Your task to perform on an android device: toggle translation in the chrome app Image 0: 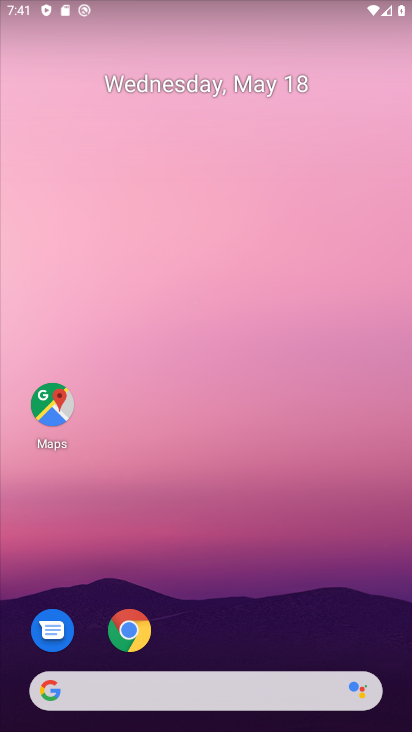
Step 0: drag from (312, 556) to (342, 74)
Your task to perform on an android device: toggle translation in the chrome app Image 1: 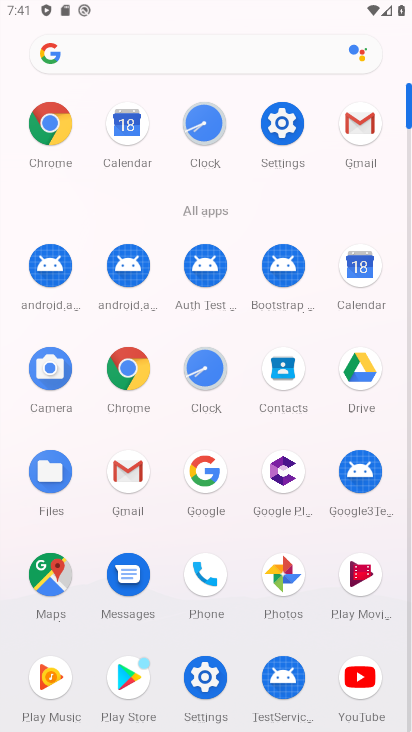
Step 1: click (35, 122)
Your task to perform on an android device: toggle translation in the chrome app Image 2: 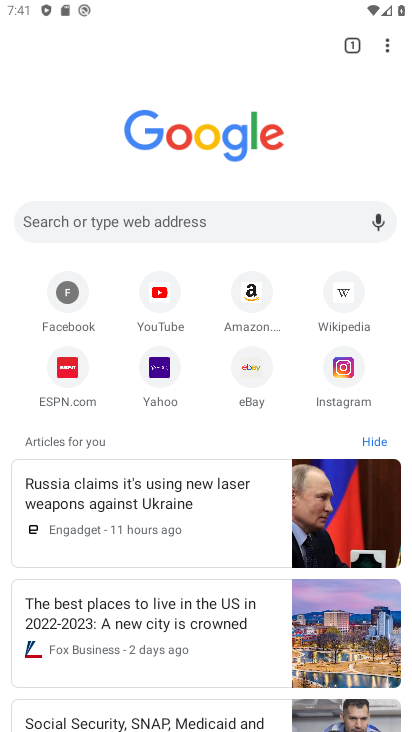
Step 2: drag from (398, 55) to (203, 376)
Your task to perform on an android device: toggle translation in the chrome app Image 3: 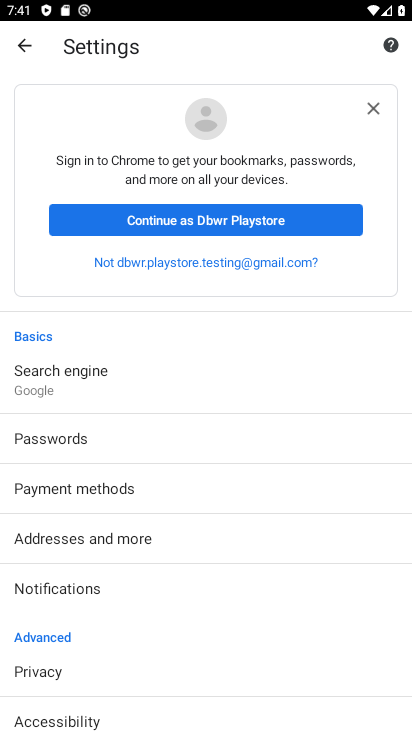
Step 3: drag from (177, 657) to (223, 108)
Your task to perform on an android device: toggle translation in the chrome app Image 4: 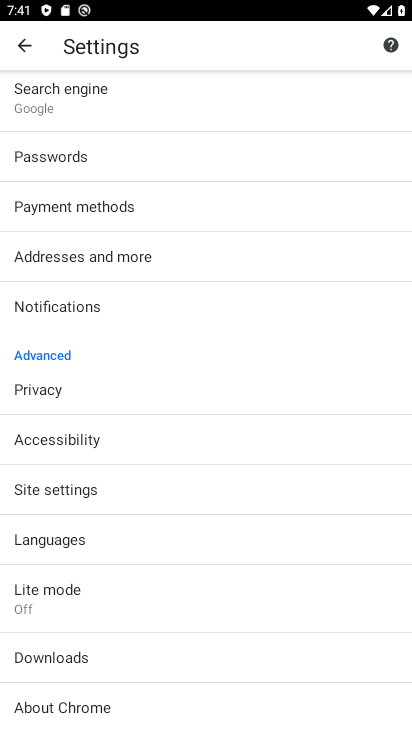
Step 4: click (117, 551)
Your task to perform on an android device: toggle translation in the chrome app Image 5: 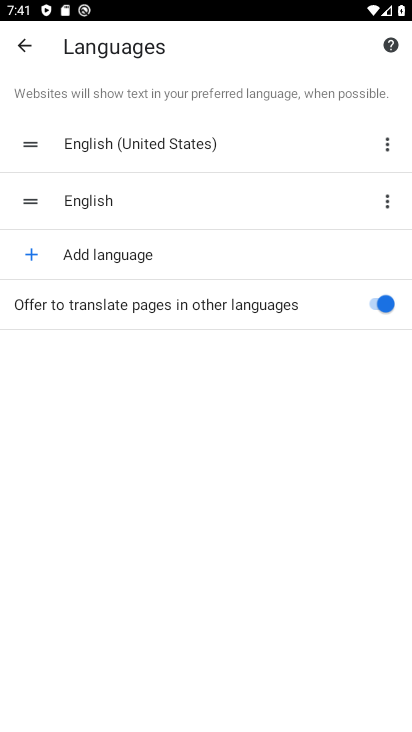
Step 5: click (381, 294)
Your task to perform on an android device: toggle translation in the chrome app Image 6: 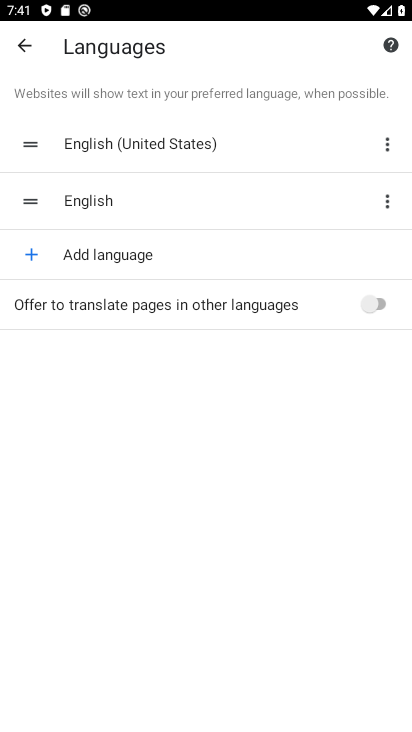
Step 6: task complete